Your task to perform on an android device: Is it going to rain today? Image 0: 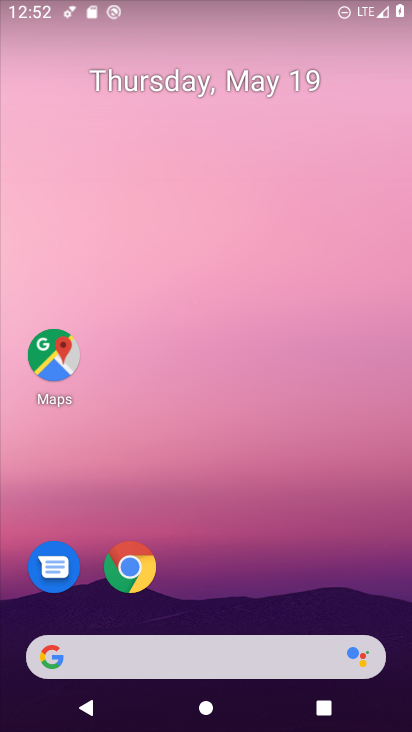
Step 0: click (279, 658)
Your task to perform on an android device: Is it going to rain today? Image 1: 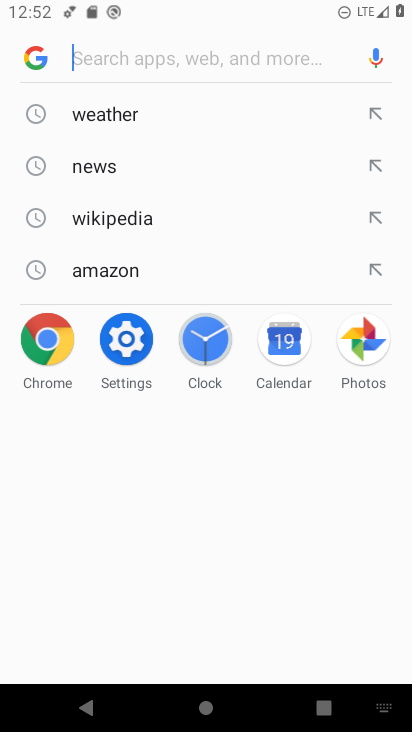
Step 1: click (101, 115)
Your task to perform on an android device: Is it going to rain today? Image 2: 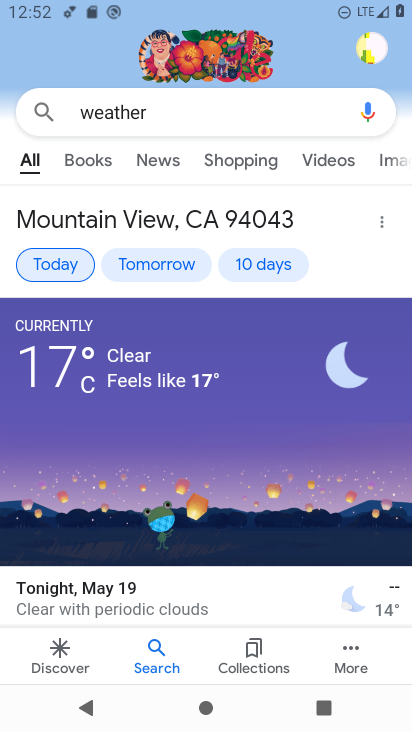
Step 2: click (64, 254)
Your task to perform on an android device: Is it going to rain today? Image 3: 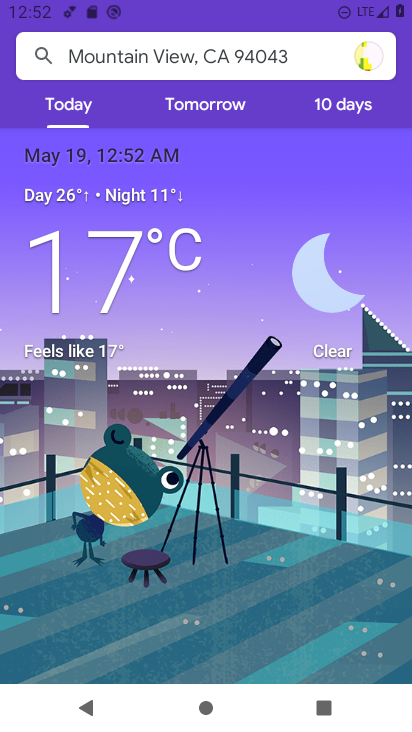
Step 3: task complete